Your task to perform on an android device: Go to battery settings Image 0: 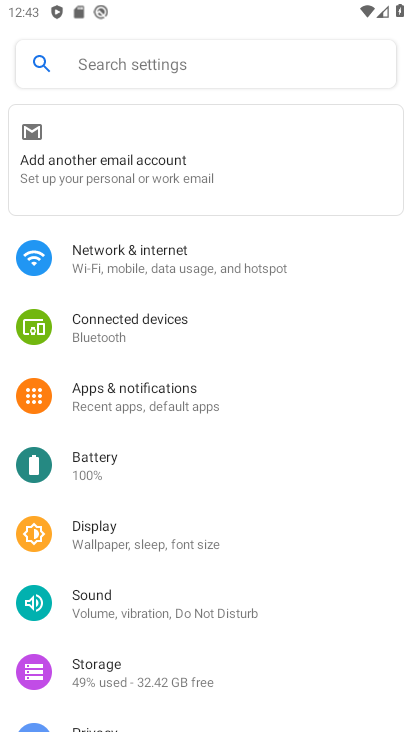
Step 0: click (163, 472)
Your task to perform on an android device: Go to battery settings Image 1: 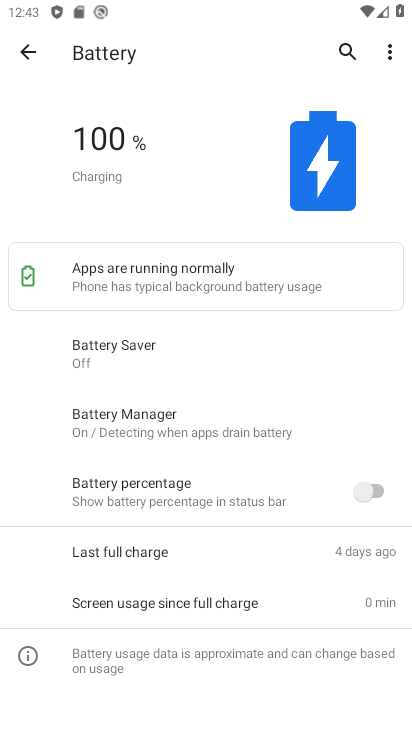
Step 1: task complete